Your task to perform on an android device: Open calendar and show me the second week of next month Image 0: 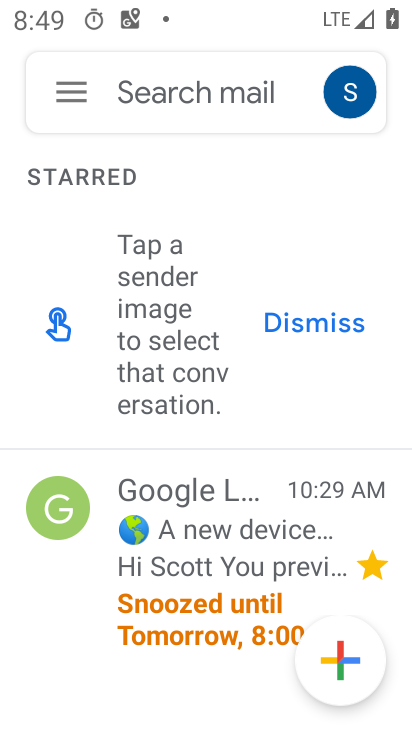
Step 0: press home button
Your task to perform on an android device: Open calendar and show me the second week of next month Image 1: 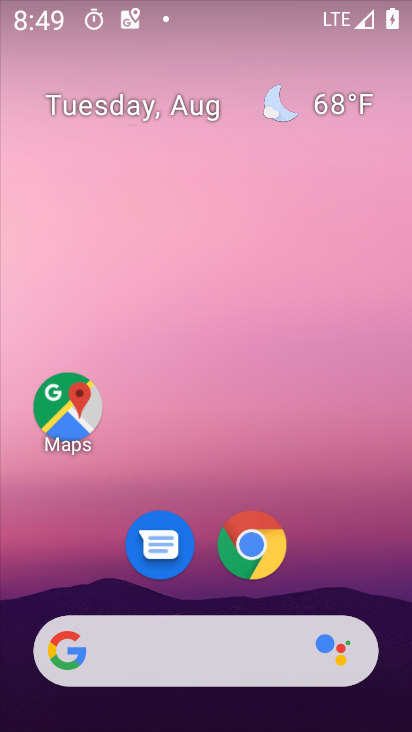
Step 1: drag from (212, 551) to (254, 88)
Your task to perform on an android device: Open calendar and show me the second week of next month Image 2: 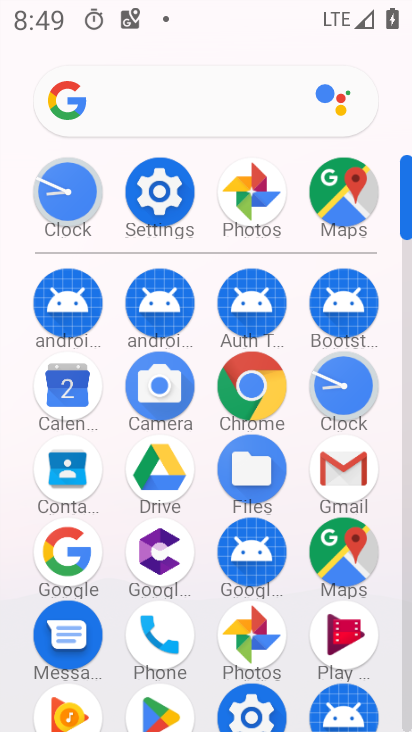
Step 2: click (73, 389)
Your task to perform on an android device: Open calendar and show me the second week of next month Image 3: 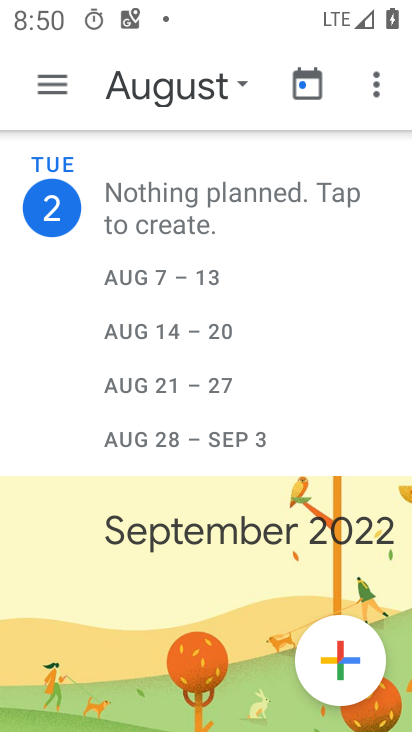
Step 3: click (174, 102)
Your task to perform on an android device: Open calendar and show me the second week of next month Image 4: 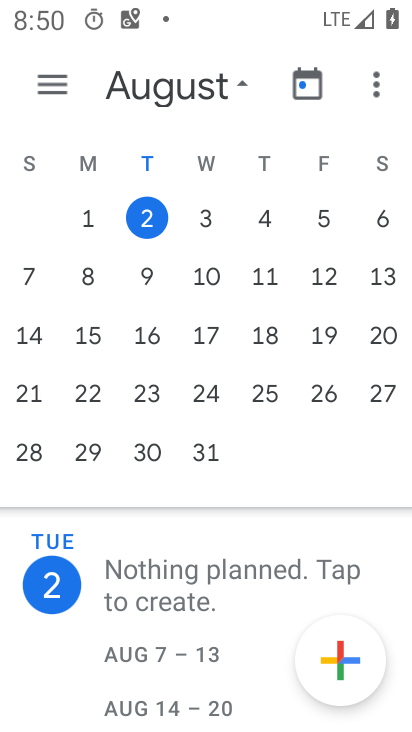
Step 4: drag from (341, 337) to (0, 343)
Your task to perform on an android device: Open calendar and show me the second week of next month Image 5: 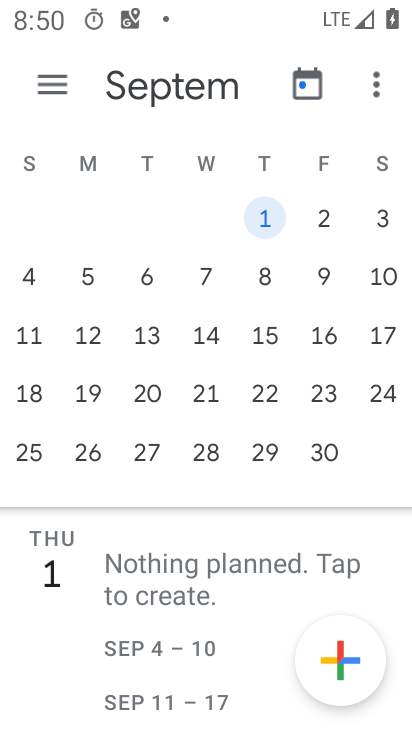
Step 5: click (25, 352)
Your task to perform on an android device: Open calendar and show me the second week of next month Image 6: 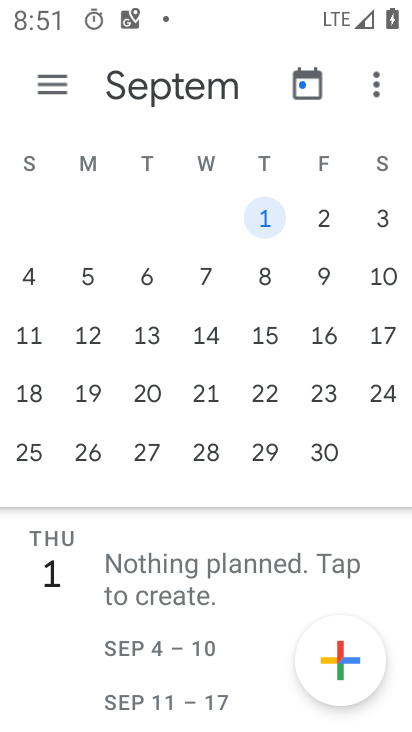
Step 6: task complete